Your task to perform on an android device: Check the weather Image 0: 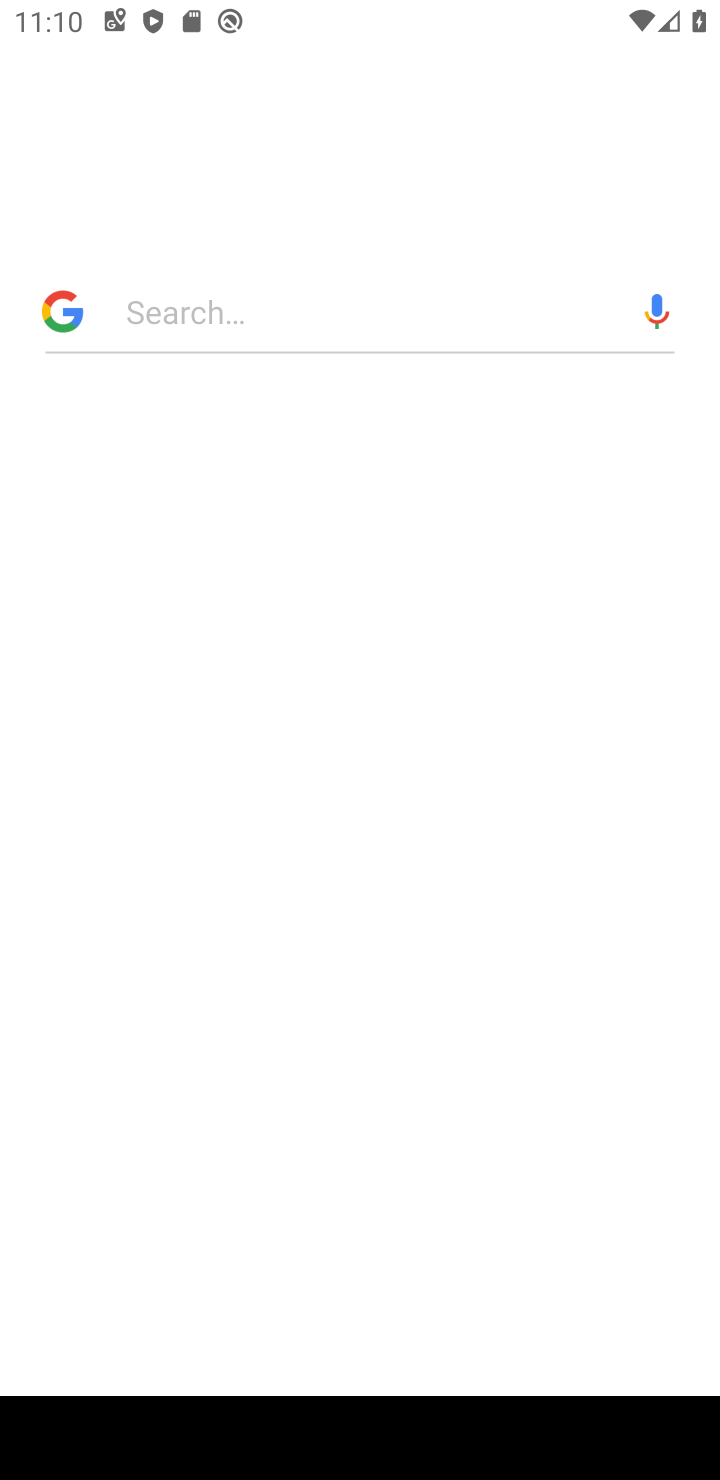
Step 0: click (580, 119)
Your task to perform on an android device: Check the weather Image 1: 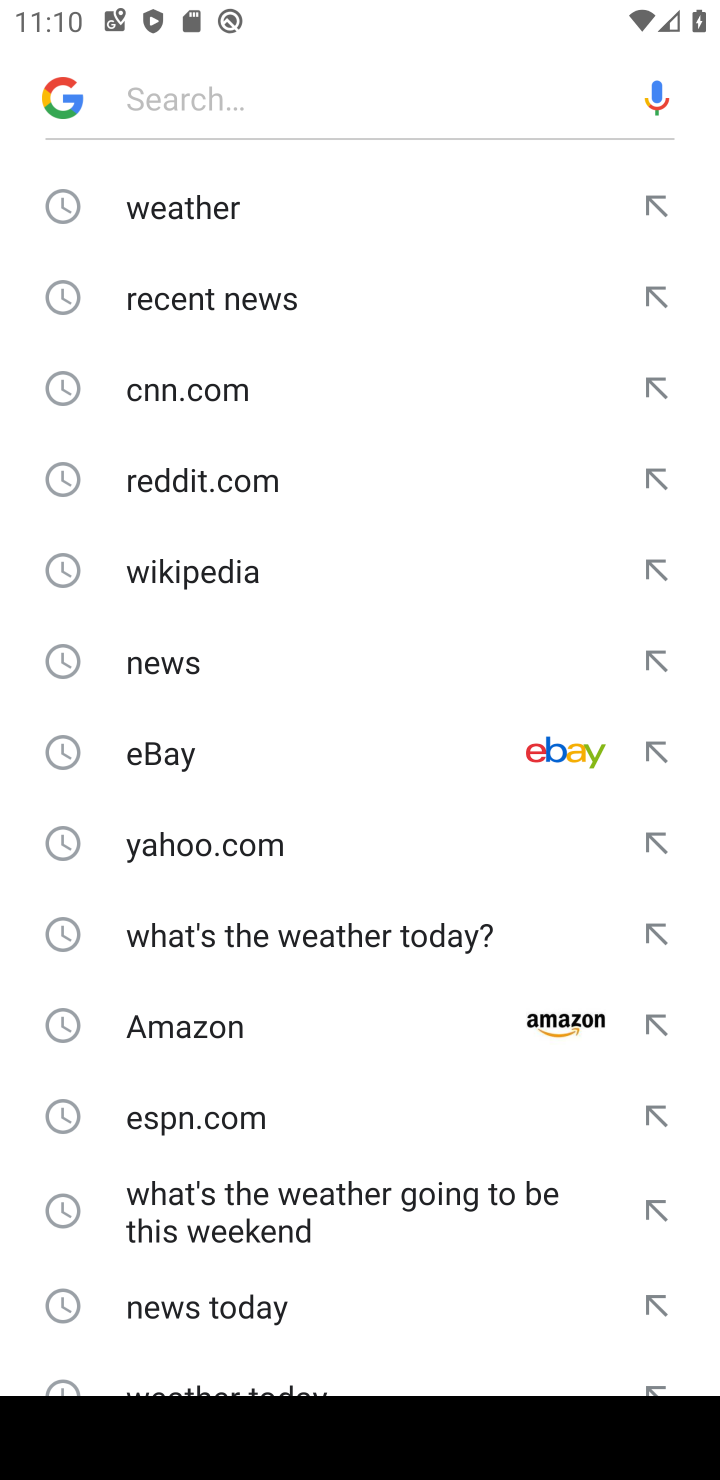
Step 1: press home button
Your task to perform on an android device: Check the weather Image 2: 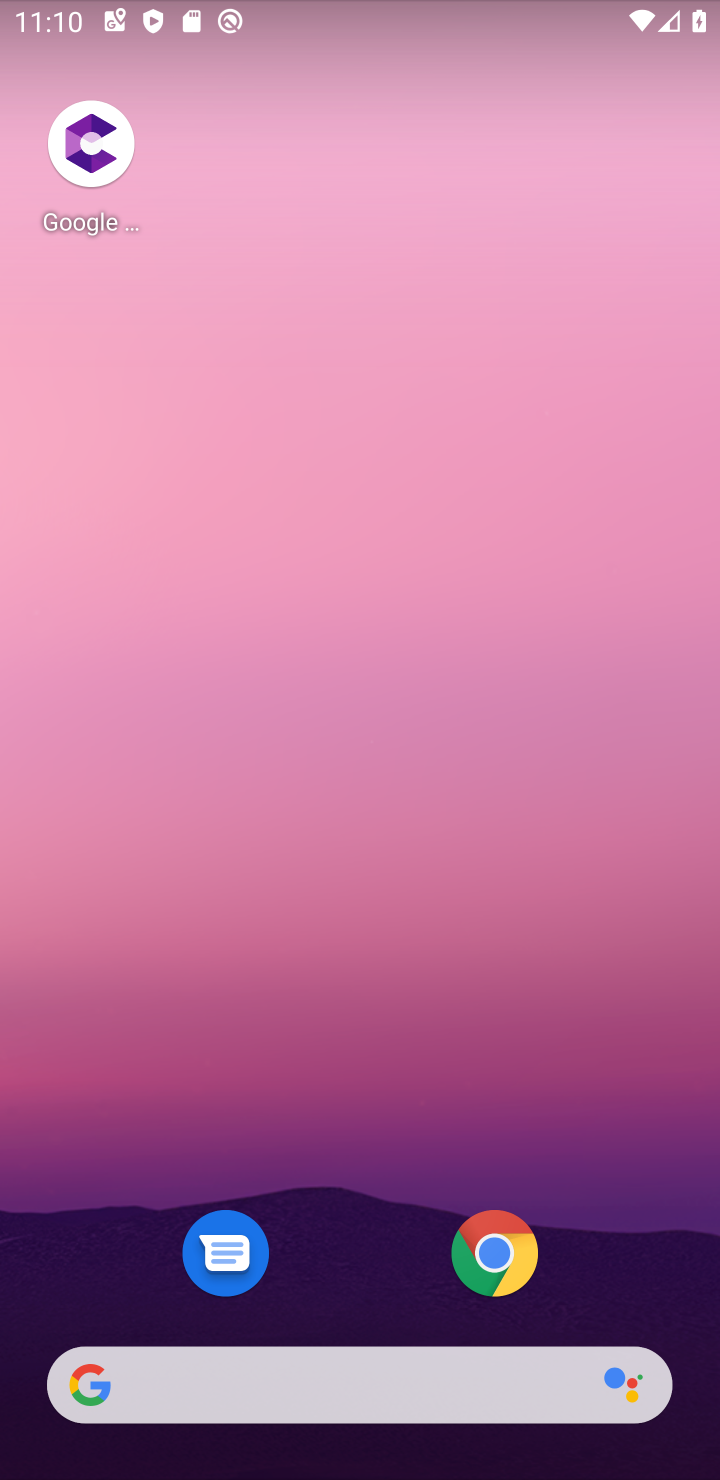
Step 2: drag from (303, 1275) to (390, 676)
Your task to perform on an android device: Check the weather Image 3: 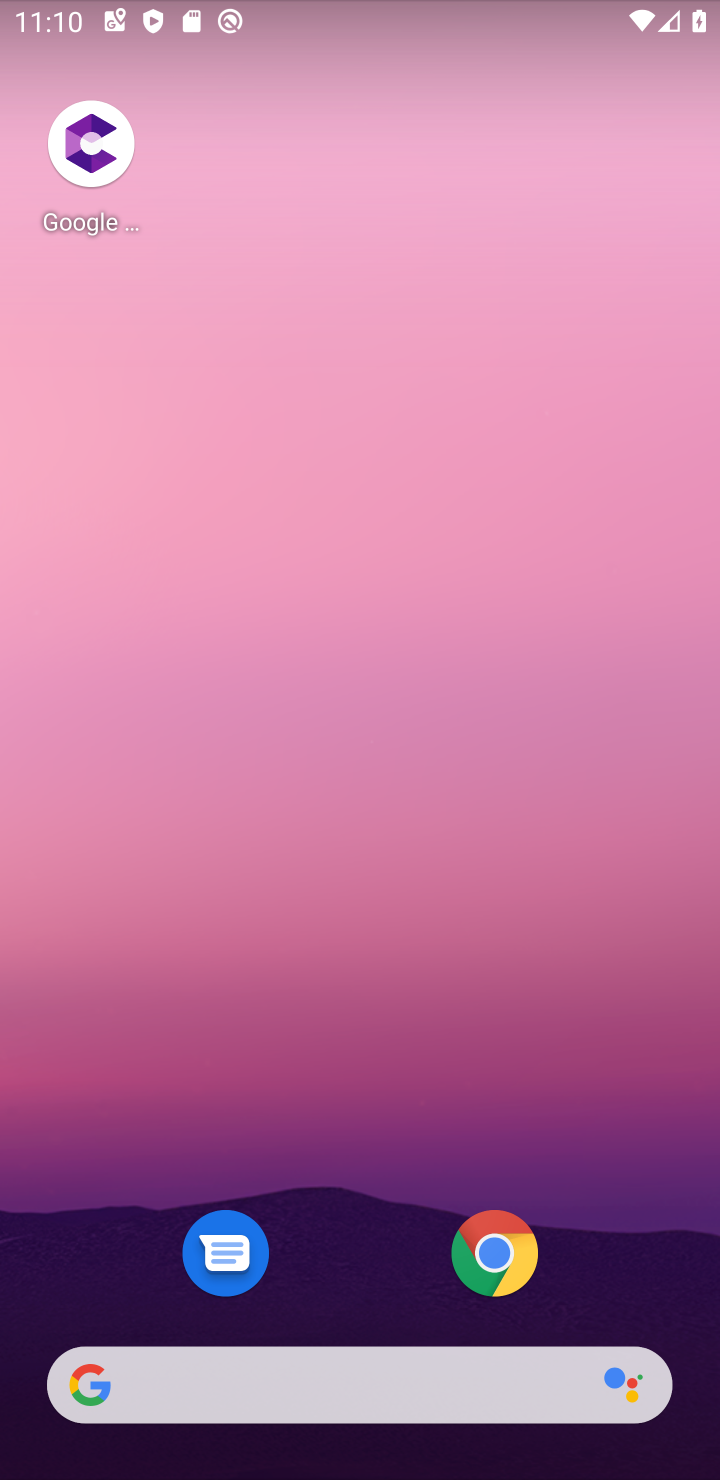
Step 3: drag from (271, 1101) to (461, 380)
Your task to perform on an android device: Check the weather Image 4: 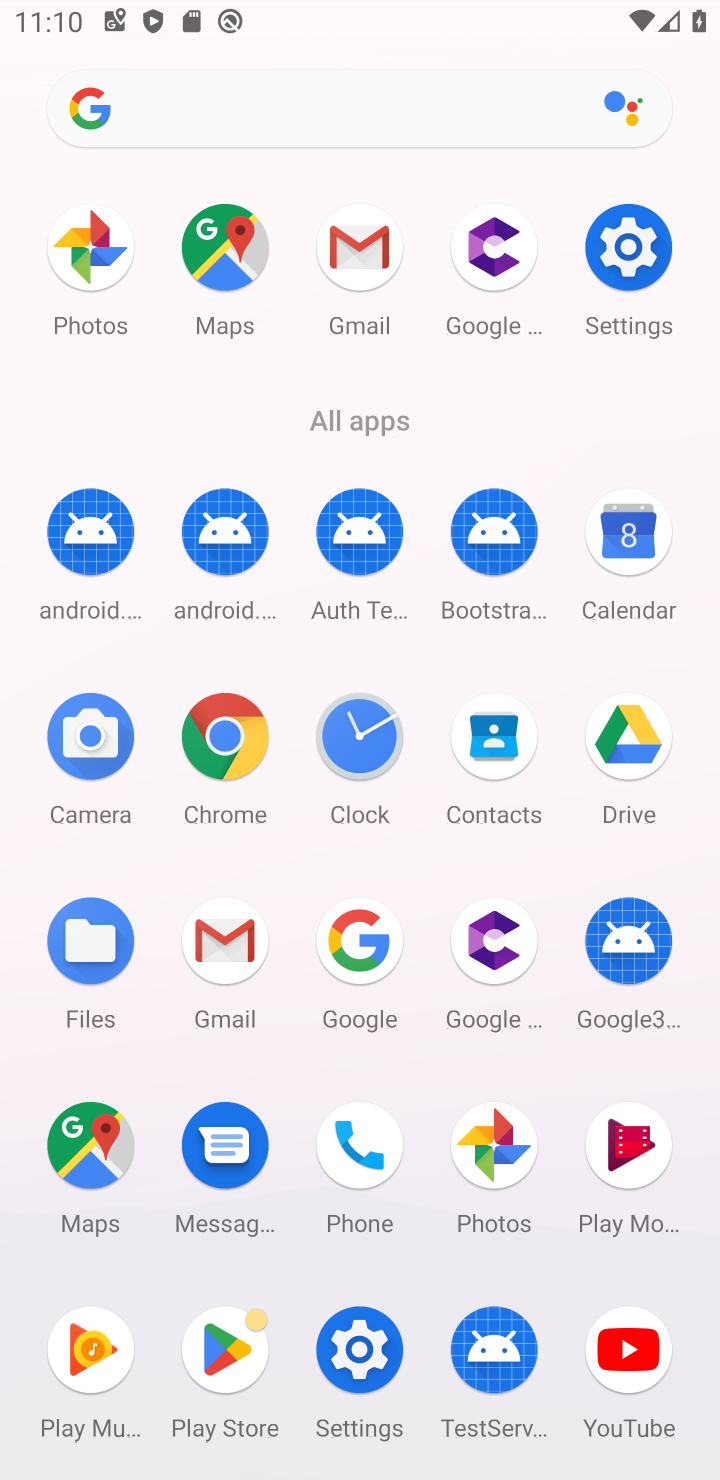
Step 4: click (235, 735)
Your task to perform on an android device: Check the weather Image 5: 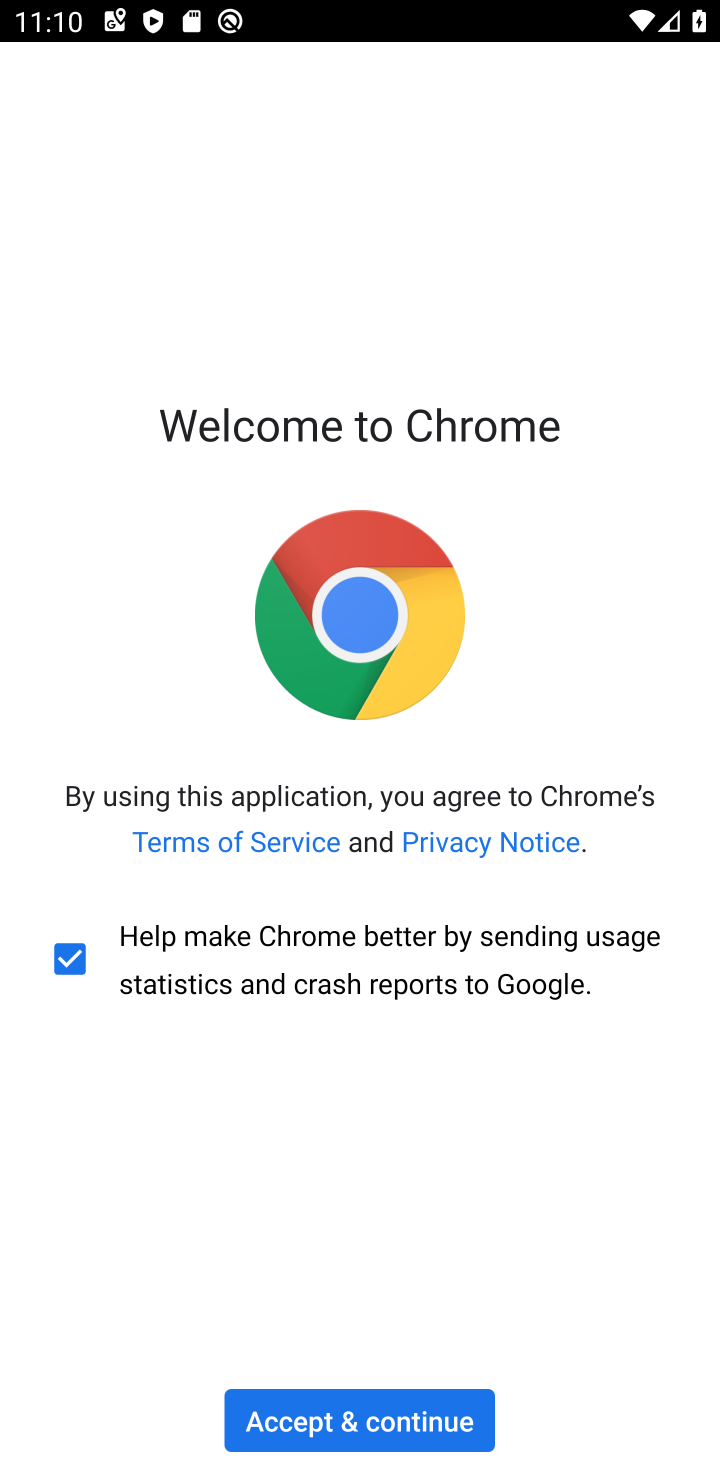
Step 5: click (250, 1430)
Your task to perform on an android device: Check the weather Image 6: 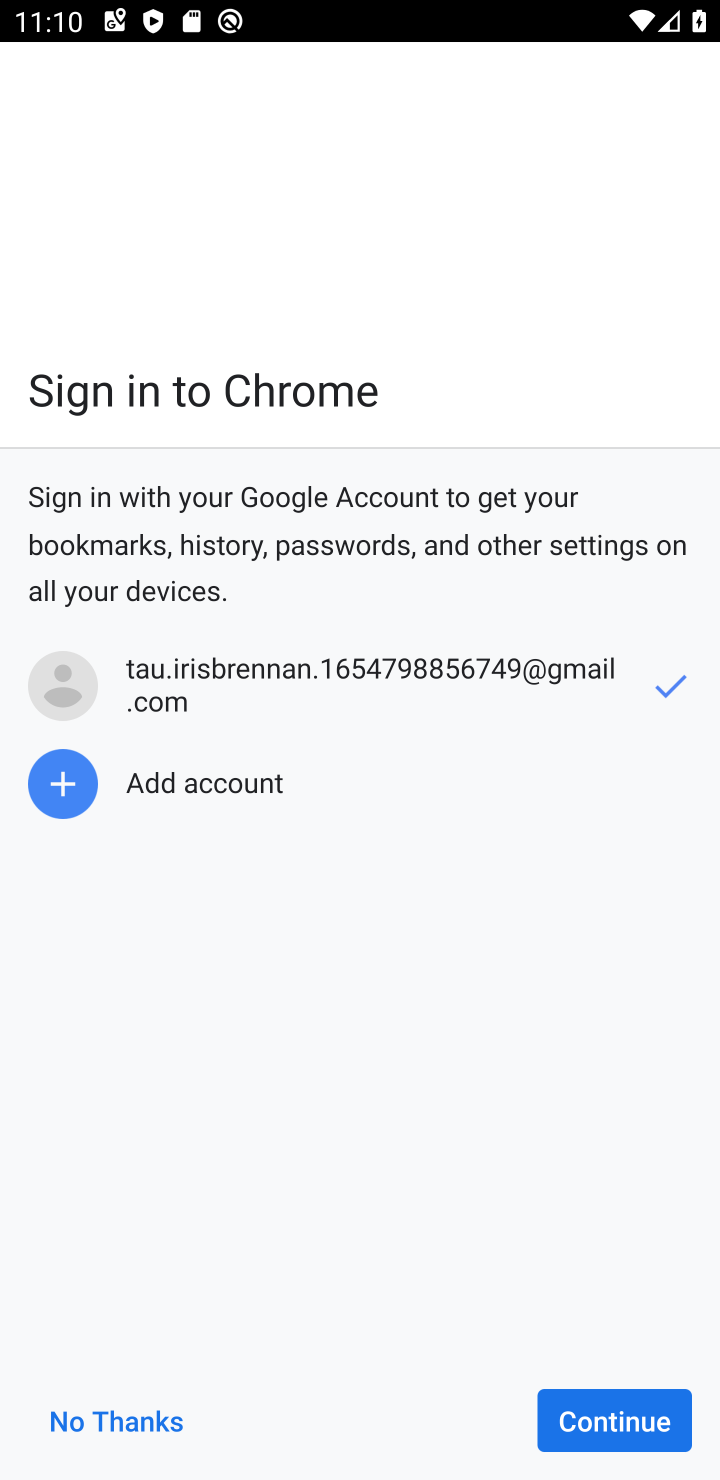
Step 6: click (608, 1385)
Your task to perform on an android device: Check the weather Image 7: 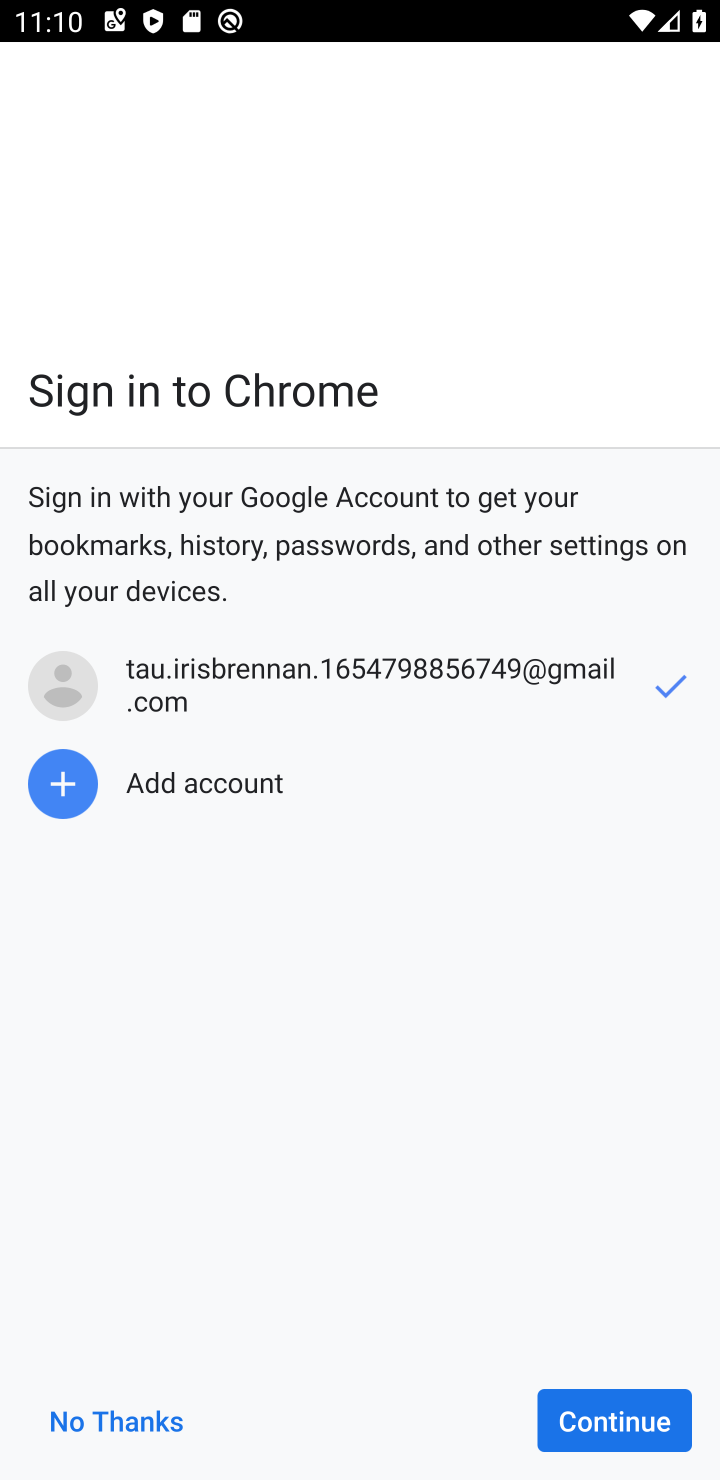
Step 7: click (608, 1402)
Your task to perform on an android device: Check the weather Image 8: 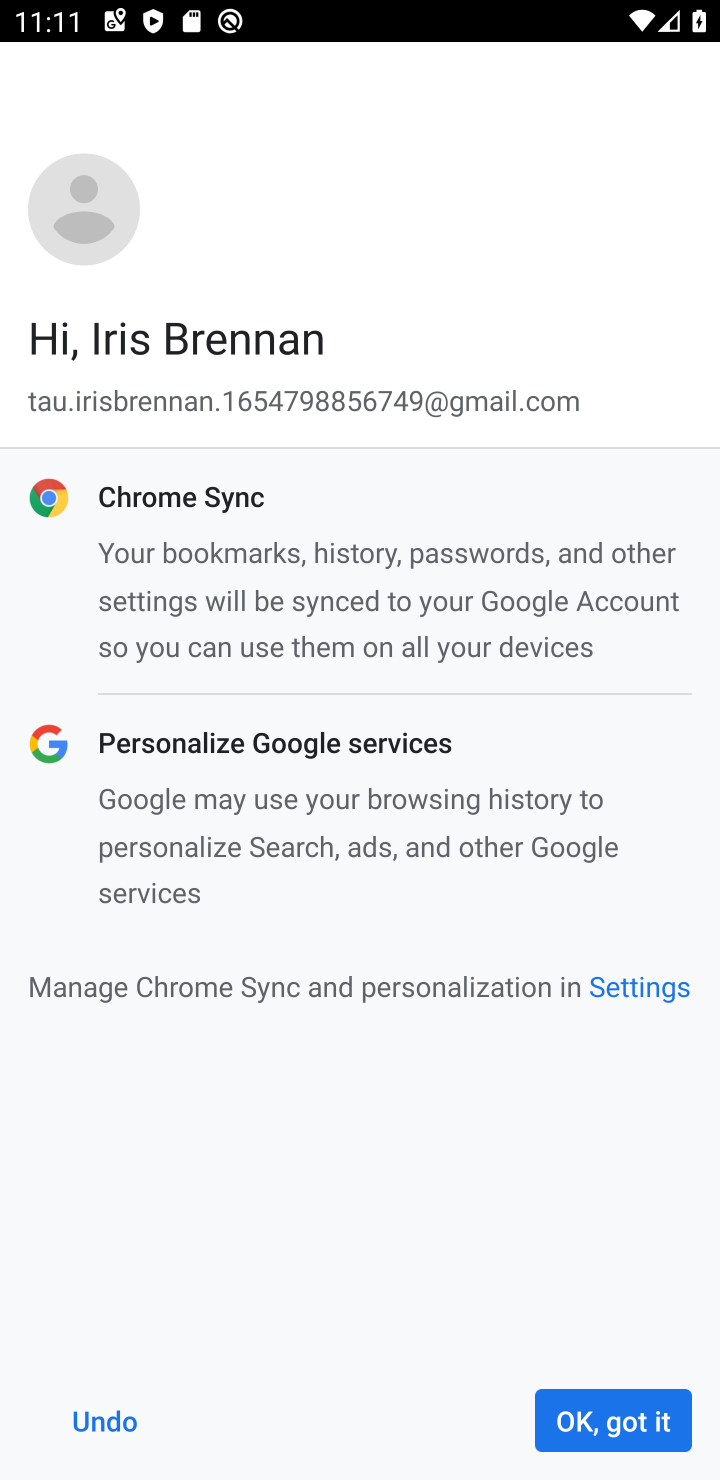
Step 8: click (609, 1395)
Your task to perform on an android device: Check the weather Image 9: 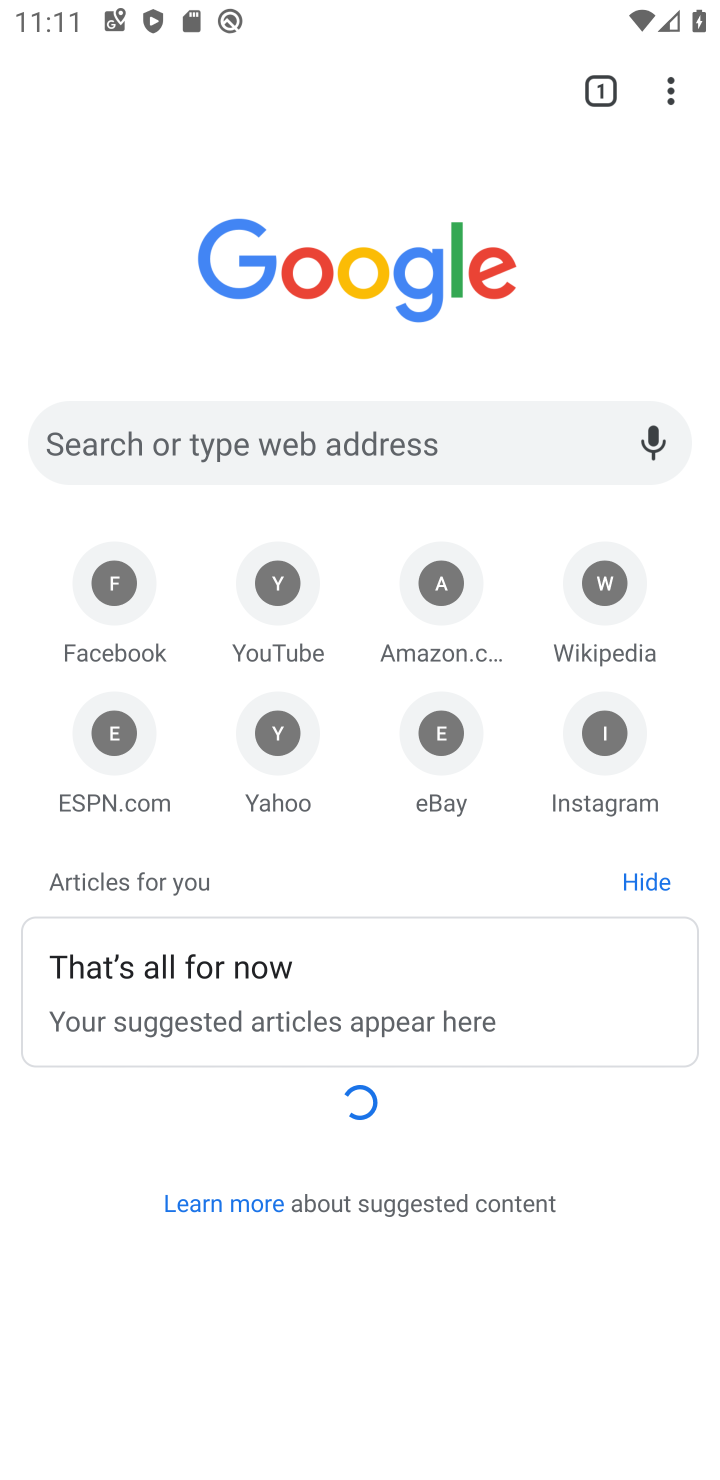
Step 9: click (367, 456)
Your task to perform on an android device: Check the weather Image 10: 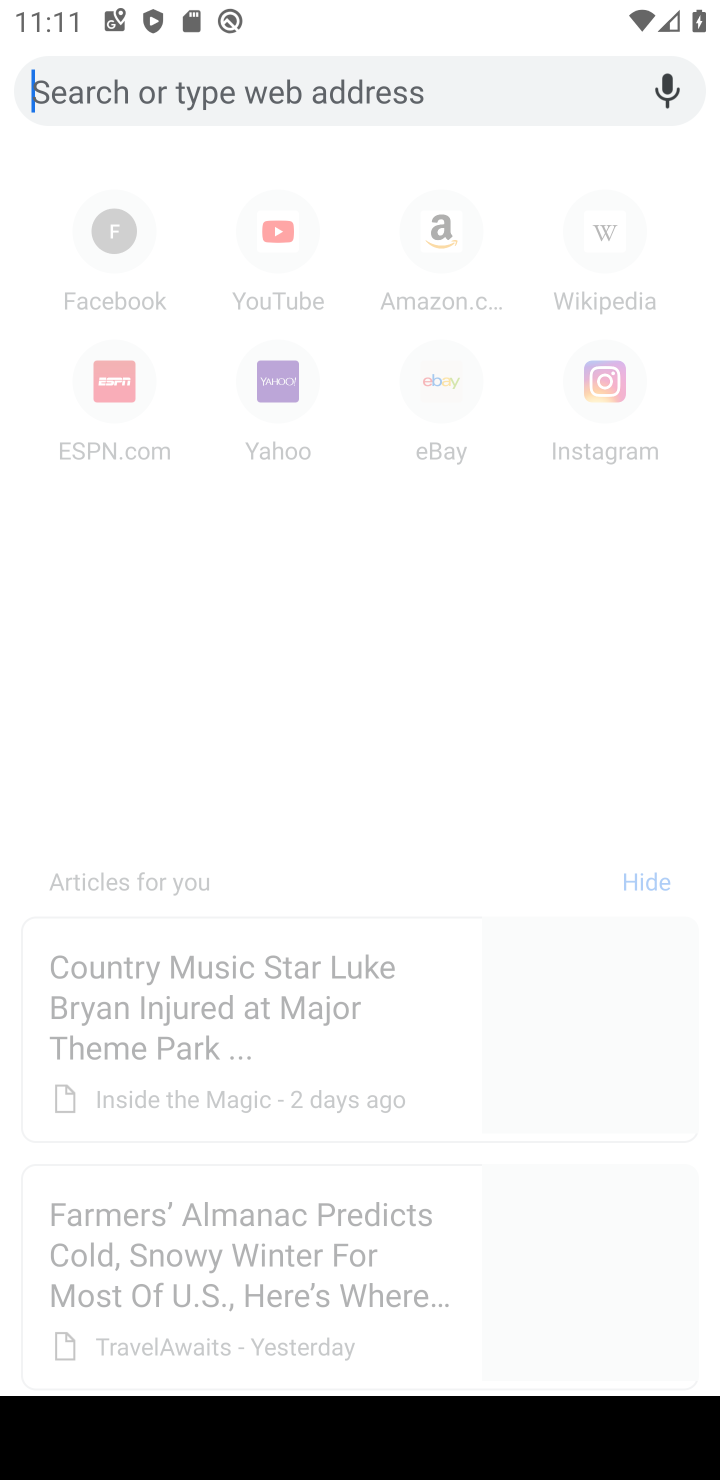
Step 10: type "Check the weather "
Your task to perform on an android device: Check the weather Image 11: 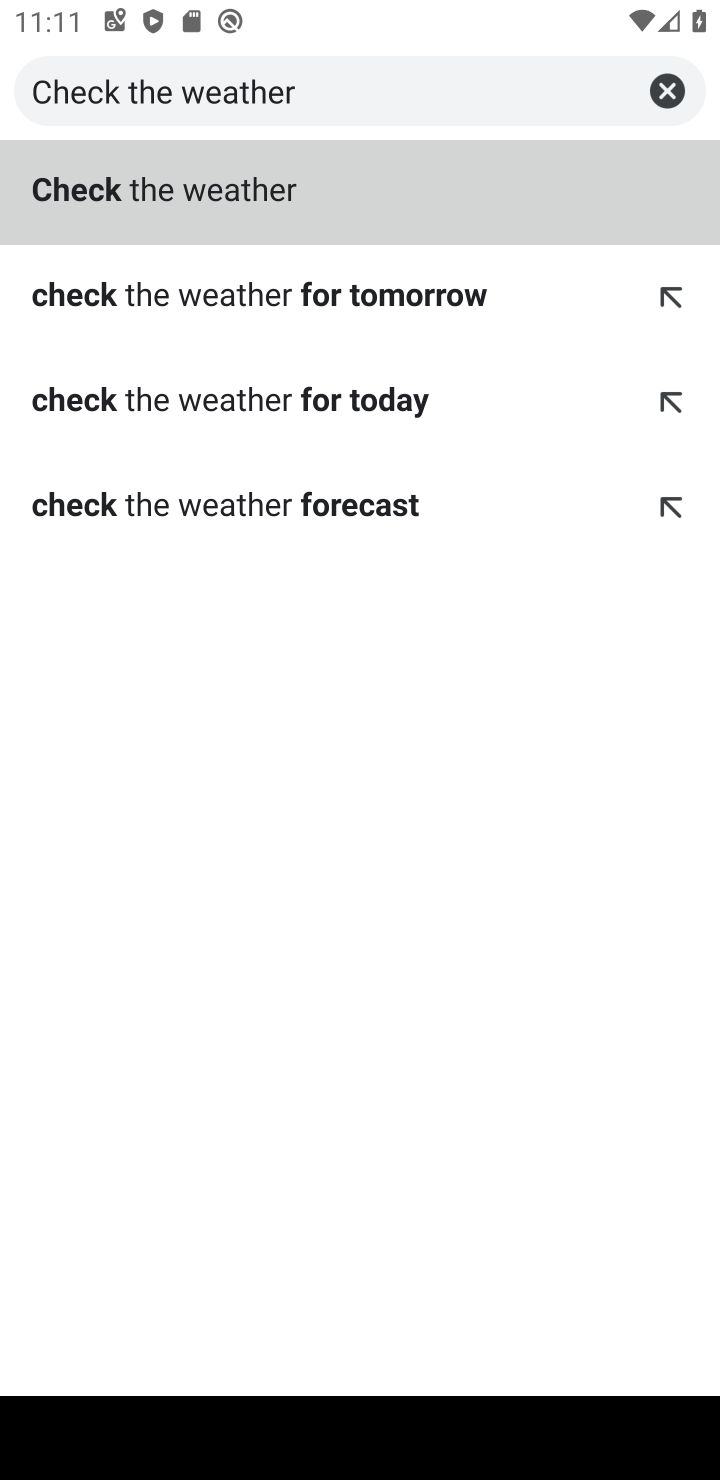
Step 11: click (332, 198)
Your task to perform on an android device: Check the weather Image 12: 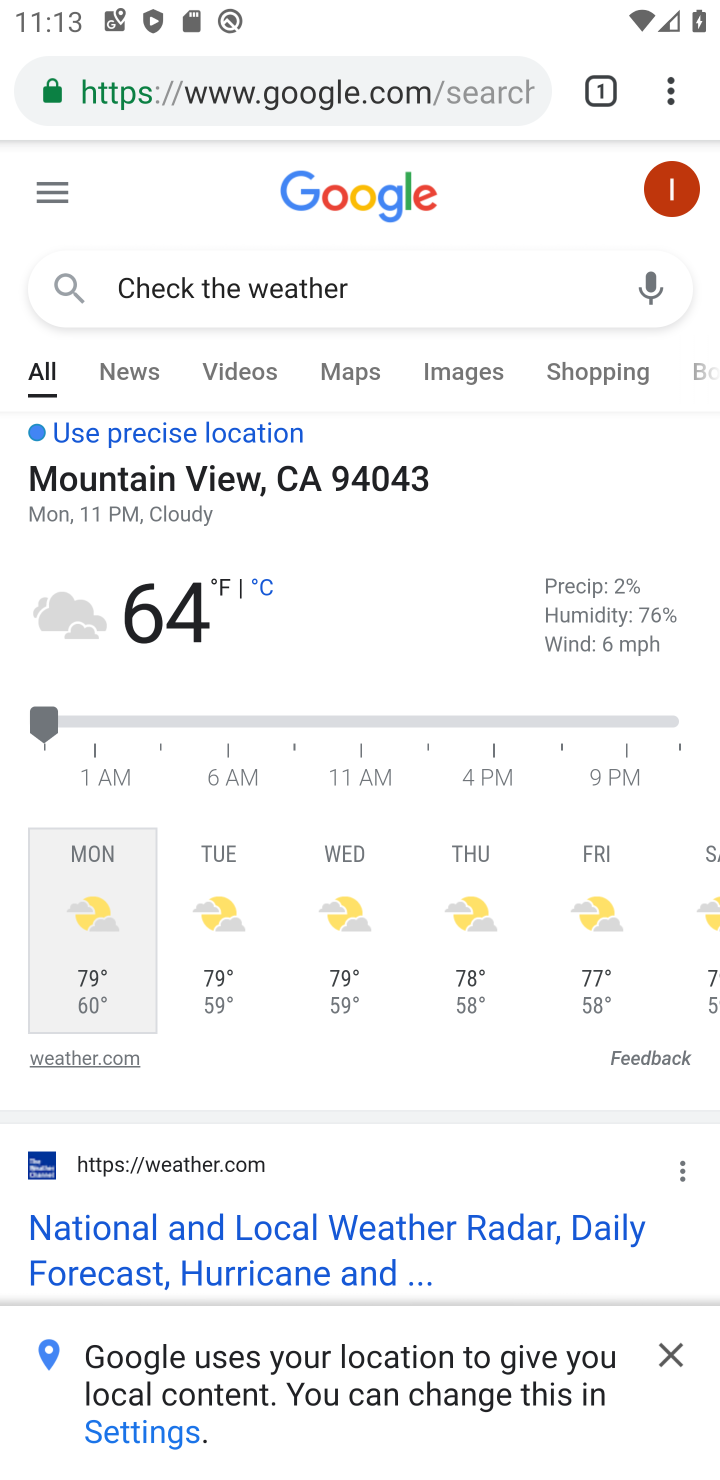
Step 12: task complete